Your task to perform on an android device: check android version Image 0: 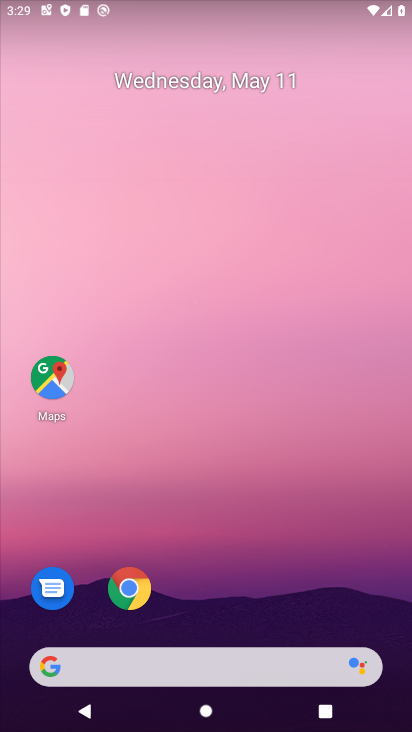
Step 0: drag from (186, 645) to (253, 9)
Your task to perform on an android device: check android version Image 1: 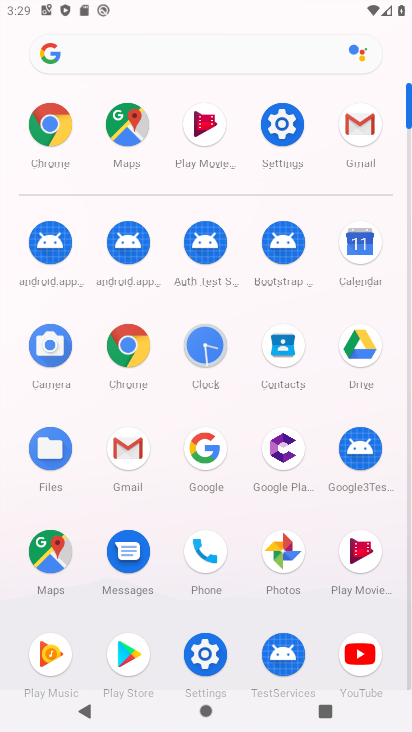
Step 1: click (213, 650)
Your task to perform on an android device: check android version Image 2: 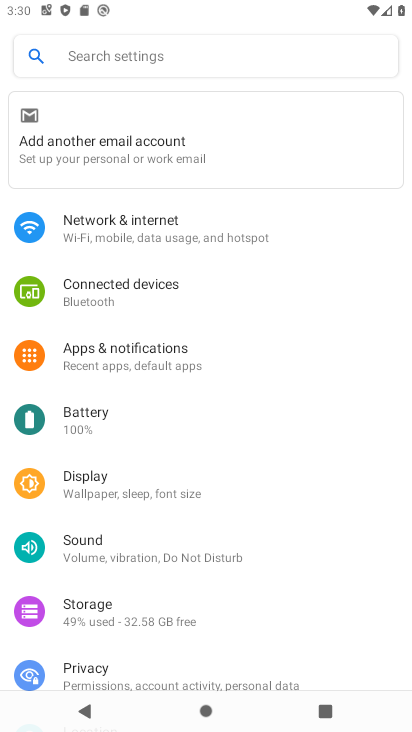
Step 2: drag from (107, 622) to (182, 11)
Your task to perform on an android device: check android version Image 3: 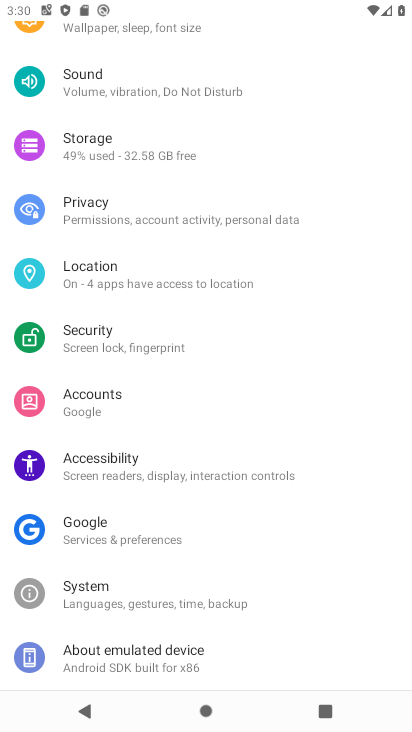
Step 3: click (133, 660)
Your task to perform on an android device: check android version Image 4: 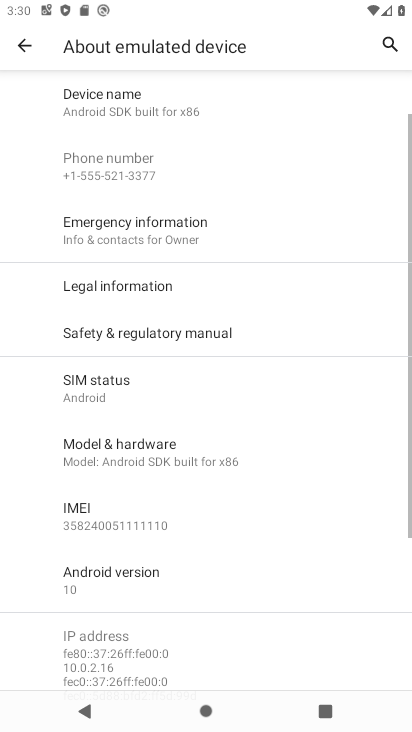
Step 4: click (224, 149)
Your task to perform on an android device: check android version Image 5: 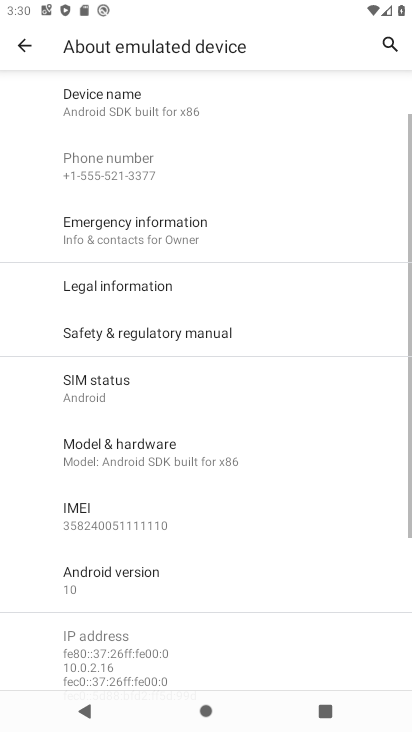
Step 5: click (130, 569)
Your task to perform on an android device: check android version Image 6: 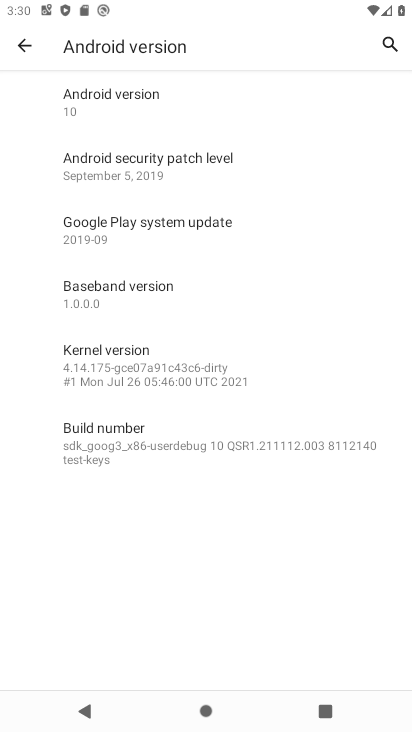
Step 6: click (153, 113)
Your task to perform on an android device: check android version Image 7: 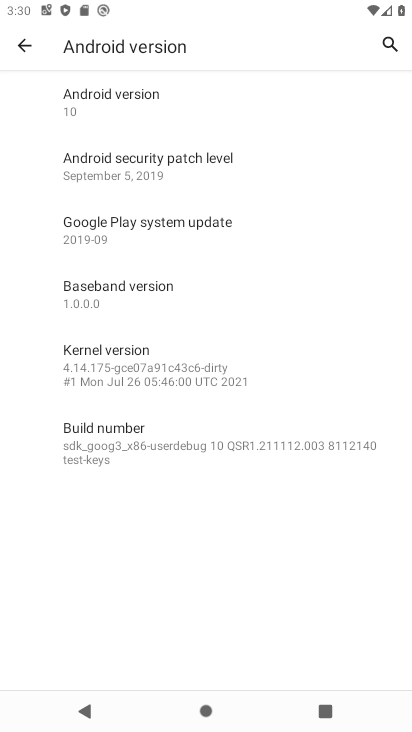
Step 7: task complete